Your task to perform on an android device: Toggle the flashlight Image 0: 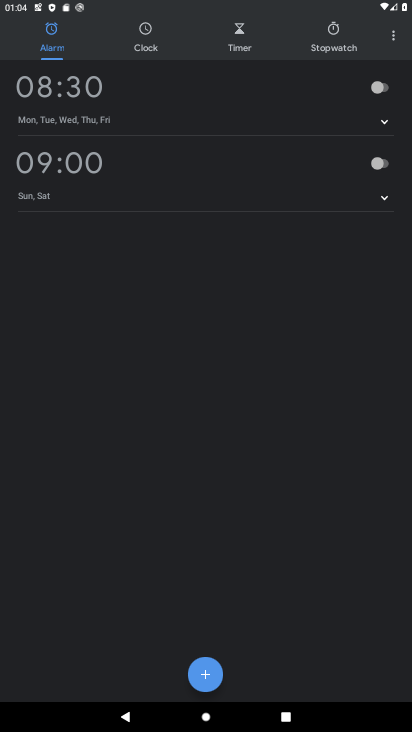
Step 0: press home button
Your task to perform on an android device: Toggle the flashlight Image 1: 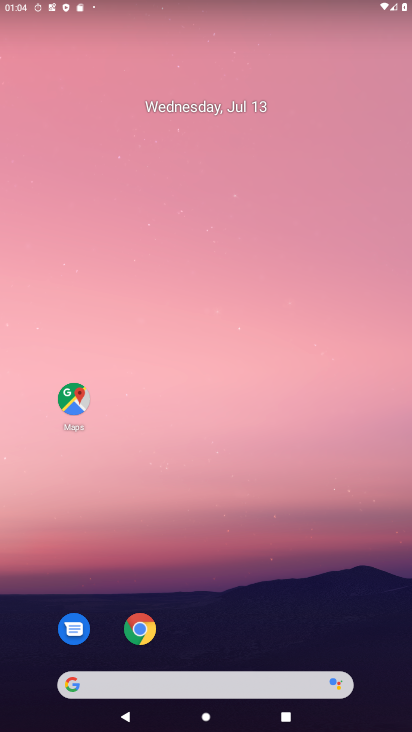
Step 1: drag from (213, 641) to (241, 161)
Your task to perform on an android device: Toggle the flashlight Image 2: 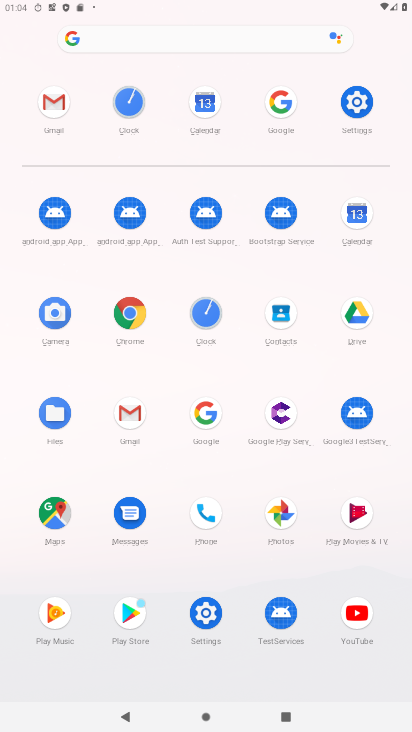
Step 2: click (374, 102)
Your task to perform on an android device: Toggle the flashlight Image 3: 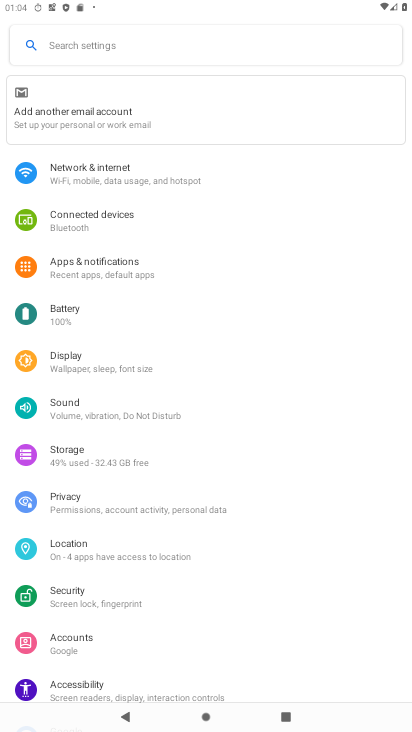
Step 3: task complete